Your task to perform on an android device: find which apps use the phone's location Image 0: 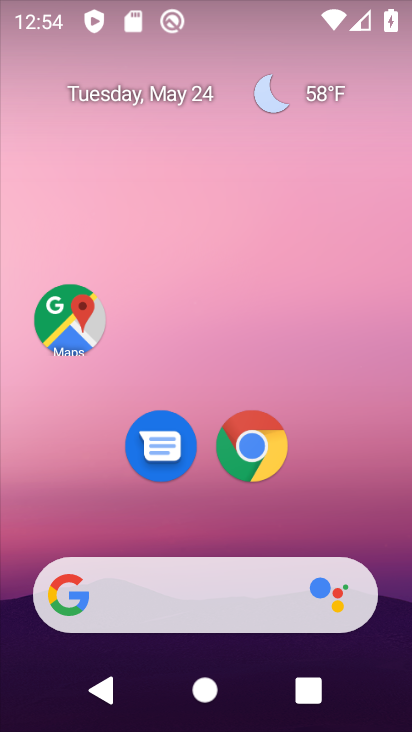
Step 0: drag from (276, 555) to (324, 177)
Your task to perform on an android device: find which apps use the phone's location Image 1: 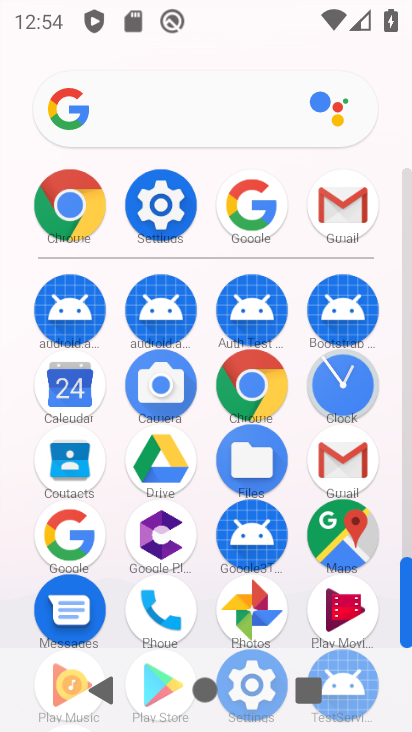
Step 1: click (167, 227)
Your task to perform on an android device: find which apps use the phone's location Image 2: 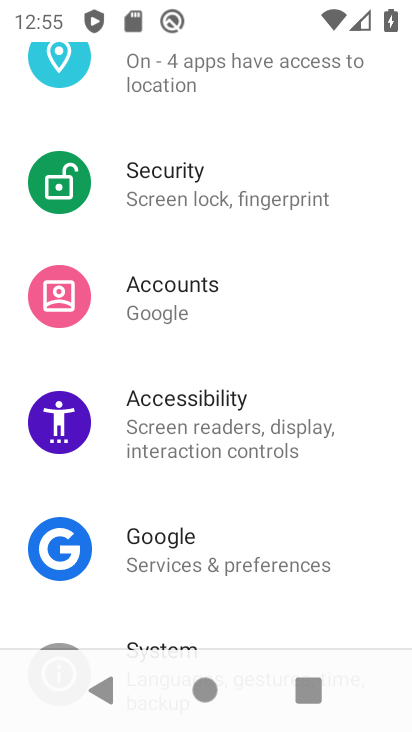
Step 2: drag from (201, 460) to (185, 176)
Your task to perform on an android device: find which apps use the phone's location Image 3: 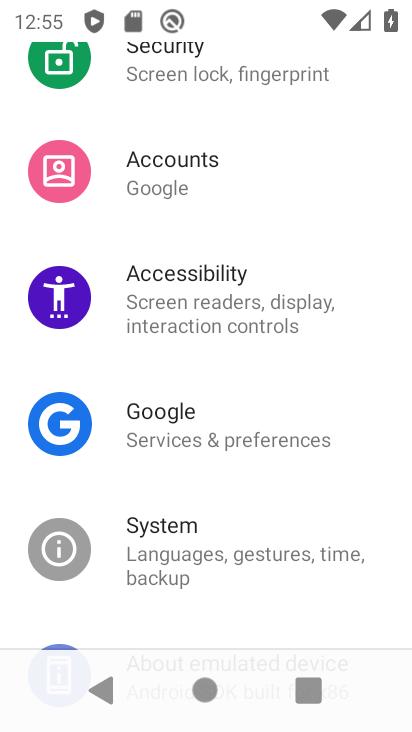
Step 3: drag from (184, 459) to (273, 97)
Your task to perform on an android device: find which apps use the phone's location Image 4: 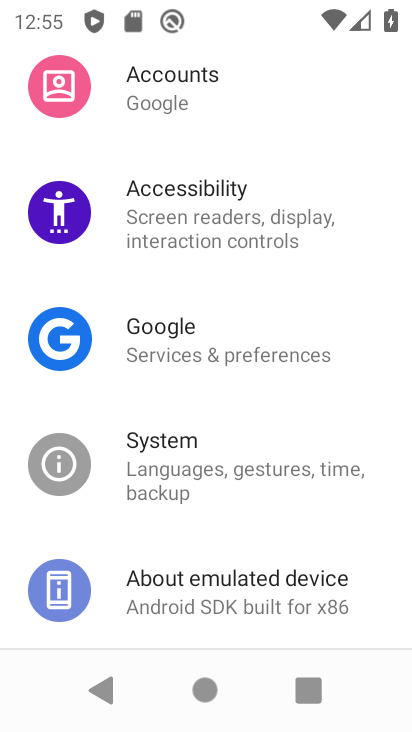
Step 4: drag from (203, 249) to (201, 335)
Your task to perform on an android device: find which apps use the phone's location Image 5: 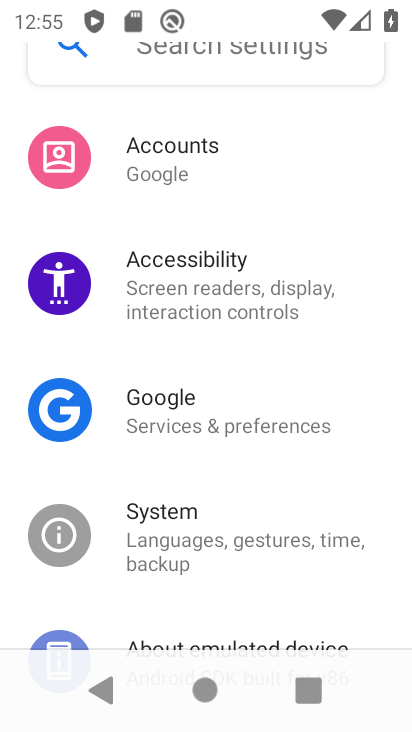
Step 5: drag from (246, 164) to (236, 368)
Your task to perform on an android device: find which apps use the phone's location Image 6: 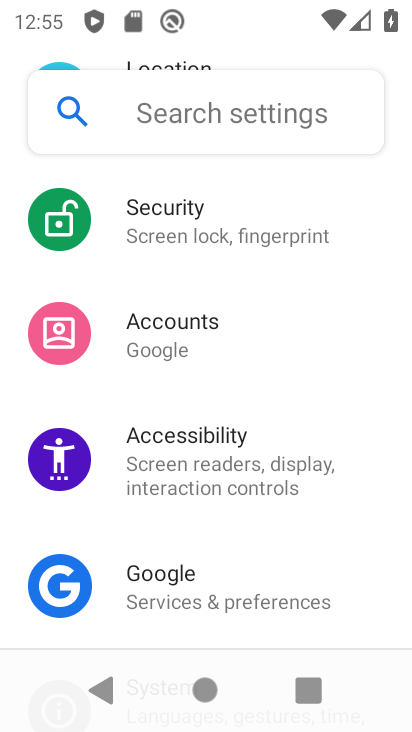
Step 6: drag from (246, 262) to (244, 527)
Your task to perform on an android device: find which apps use the phone's location Image 7: 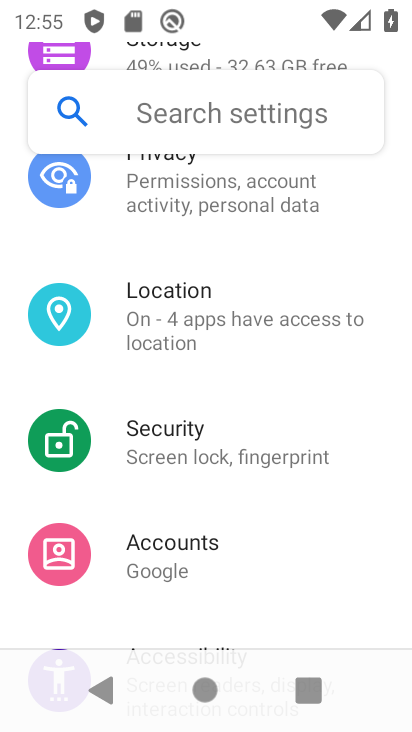
Step 7: drag from (206, 319) to (205, 468)
Your task to perform on an android device: find which apps use the phone's location Image 8: 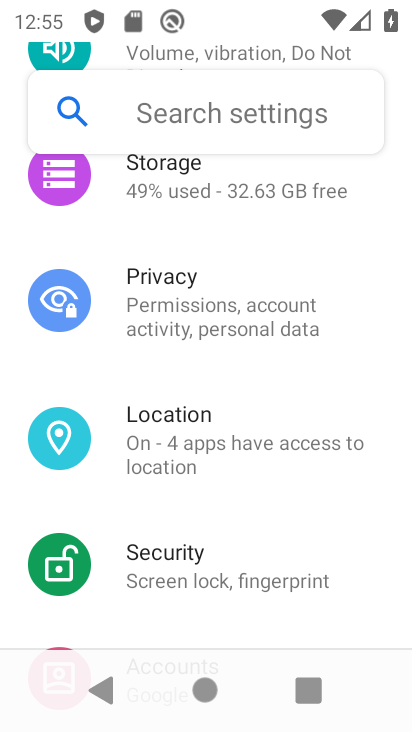
Step 8: click (163, 443)
Your task to perform on an android device: find which apps use the phone's location Image 9: 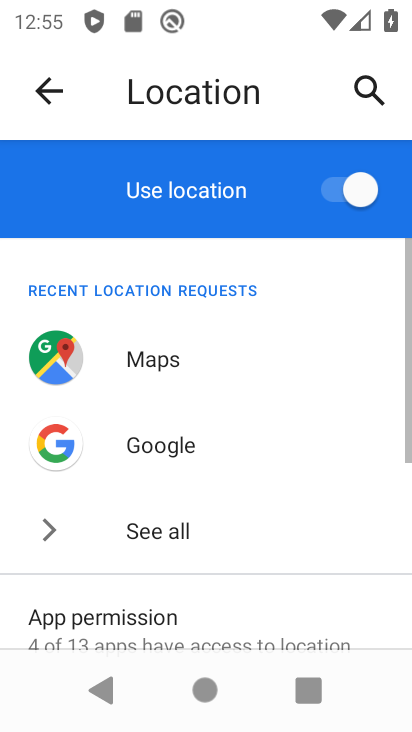
Step 9: click (150, 614)
Your task to perform on an android device: find which apps use the phone's location Image 10: 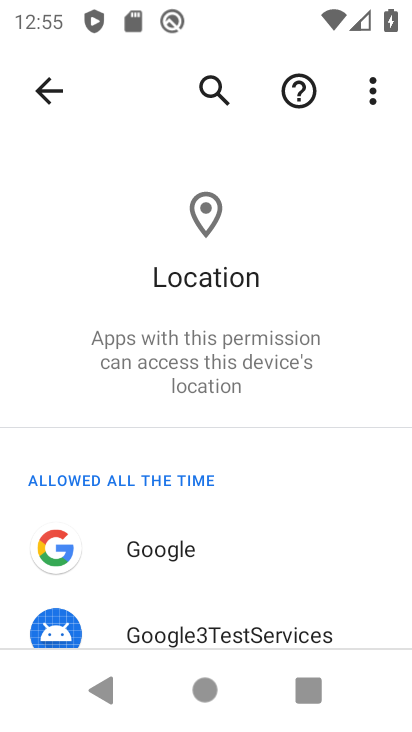
Step 10: task complete